Your task to perform on an android device: make emails show in primary in the gmail app Image 0: 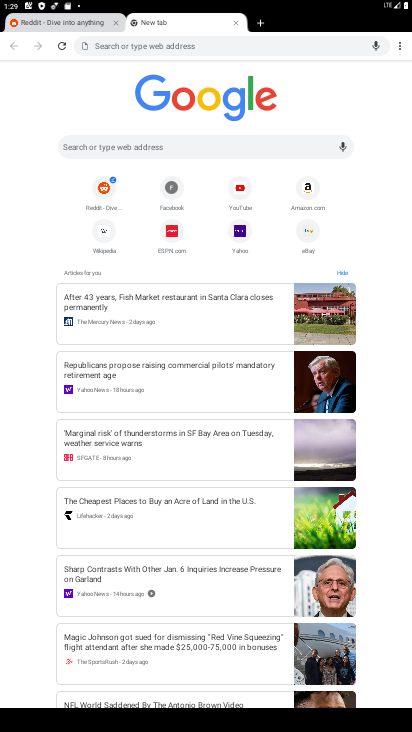
Step 0: press home button
Your task to perform on an android device: make emails show in primary in the gmail app Image 1: 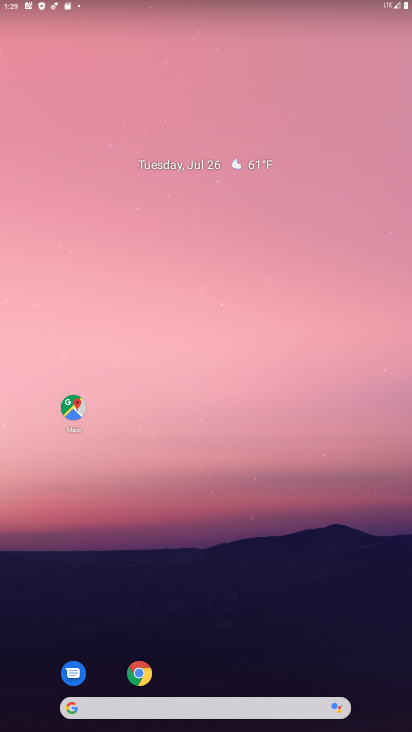
Step 1: drag from (238, 661) to (238, 39)
Your task to perform on an android device: make emails show in primary in the gmail app Image 2: 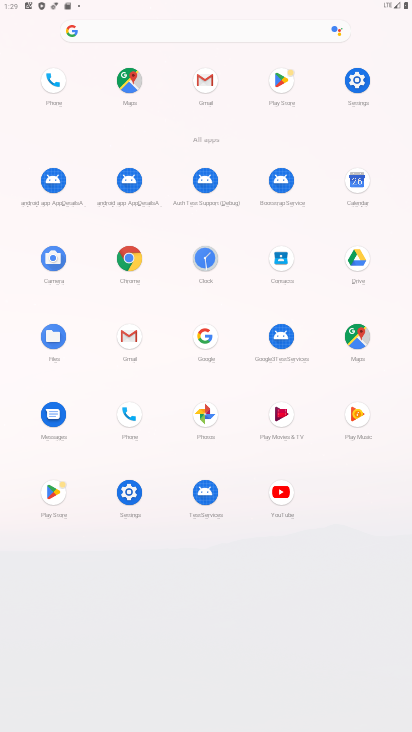
Step 2: click (201, 79)
Your task to perform on an android device: make emails show in primary in the gmail app Image 3: 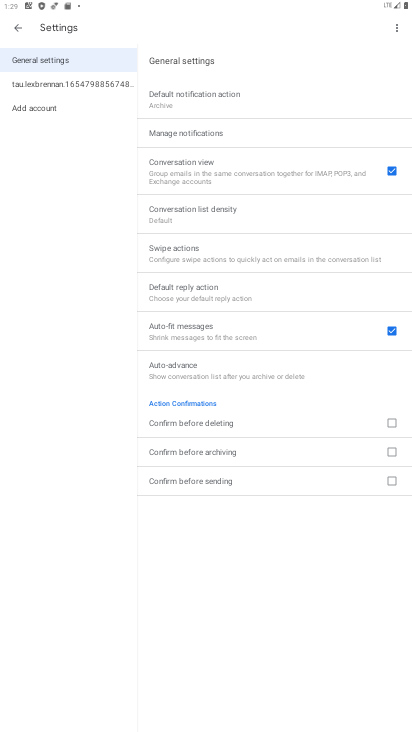
Step 3: click (72, 83)
Your task to perform on an android device: make emails show in primary in the gmail app Image 4: 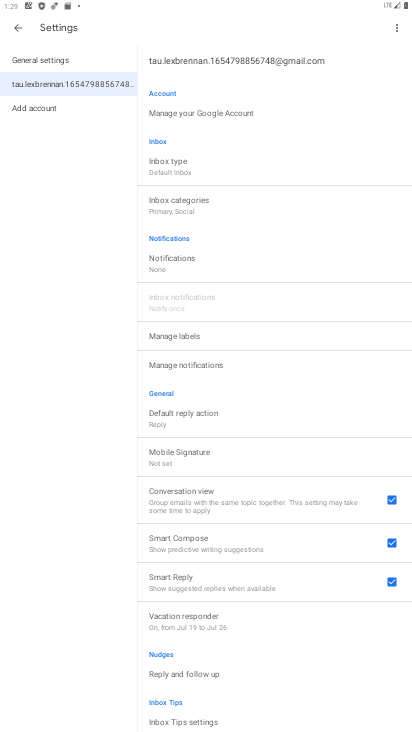
Step 4: click (172, 207)
Your task to perform on an android device: make emails show in primary in the gmail app Image 5: 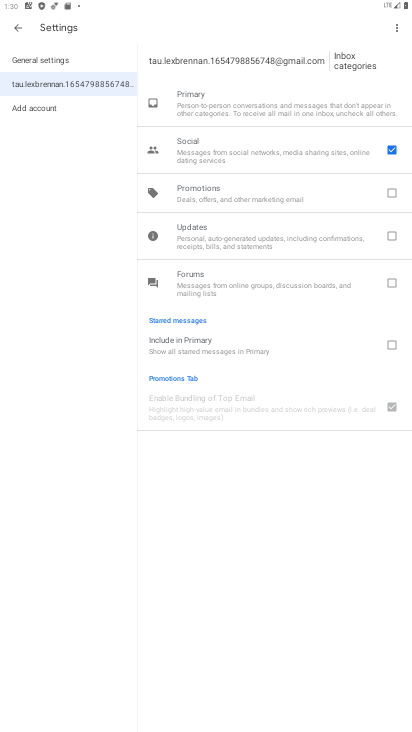
Step 5: click (393, 148)
Your task to perform on an android device: make emails show in primary in the gmail app Image 6: 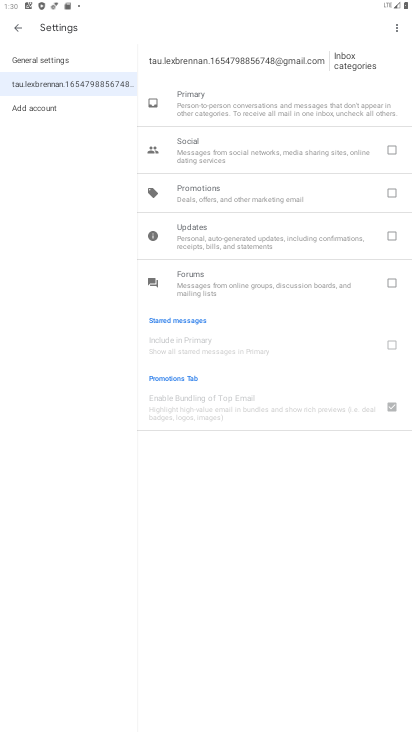
Step 6: click (115, 79)
Your task to perform on an android device: make emails show in primary in the gmail app Image 7: 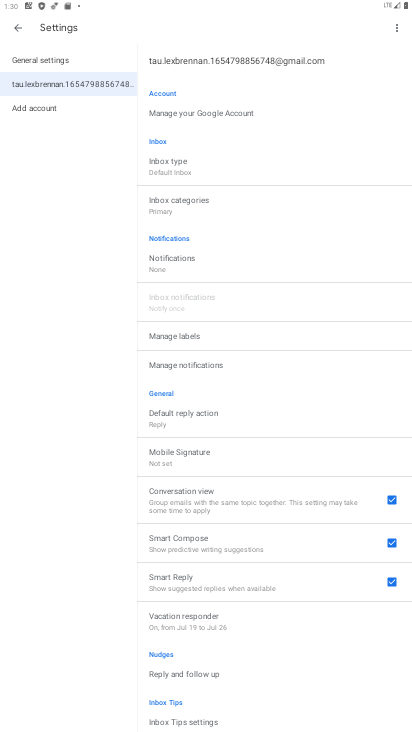
Step 7: task complete